Your task to perform on an android device: Check the weather Image 0: 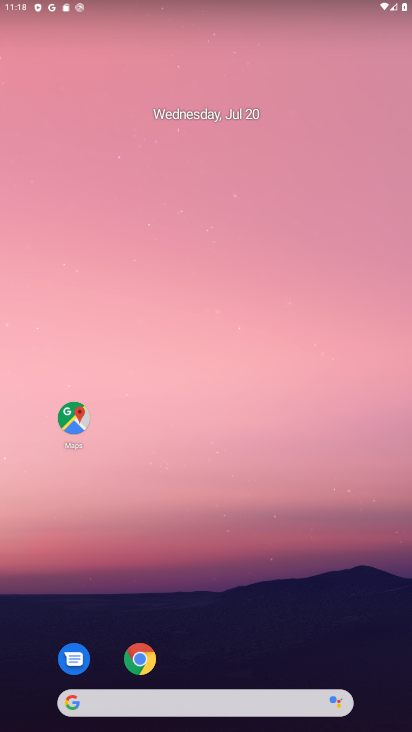
Step 0: drag from (14, 281) to (269, 315)
Your task to perform on an android device: Check the weather Image 1: 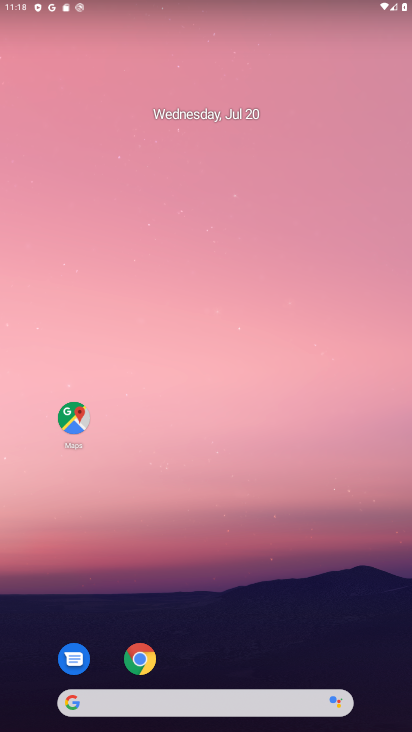
Step 1: drag from (5, 294) to (408, 322)
Your task to perform on an android device: Check the weather Image 2: 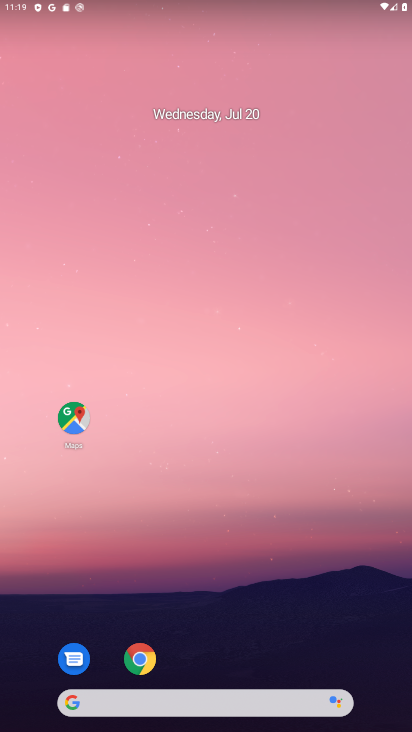
Step 2: drag from (4, 288) to (406, 384)
Your task to perform on an android device: Check the weather Image 3: 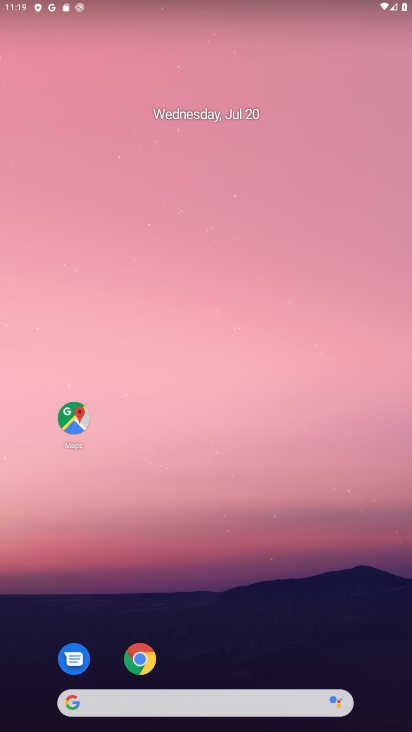
Step 3: click (137, 695)
Your task to perform on an android device: Check the weather Image 4: 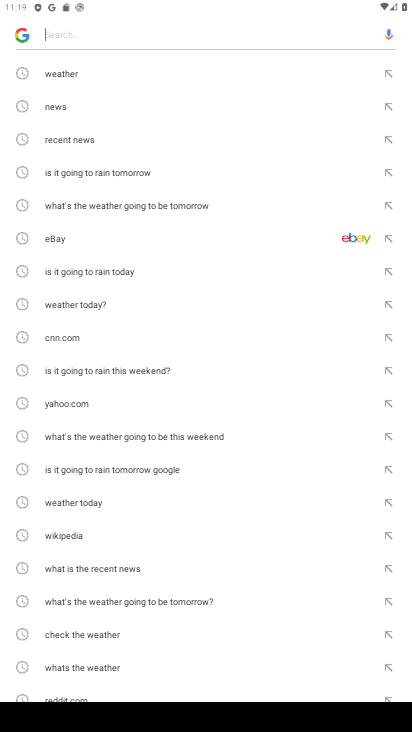
Step 4: type "weather"
Your task to perform on an android device: Check the weather Image 5: 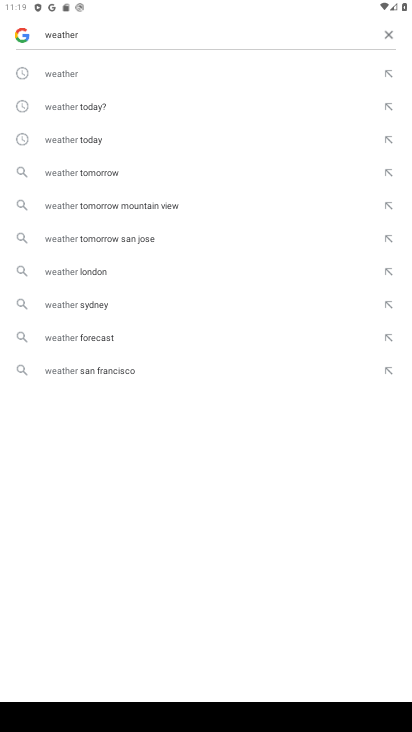
Step 5: click (65, 70)
Your task to perform on an android device: Check the weather Image 6: 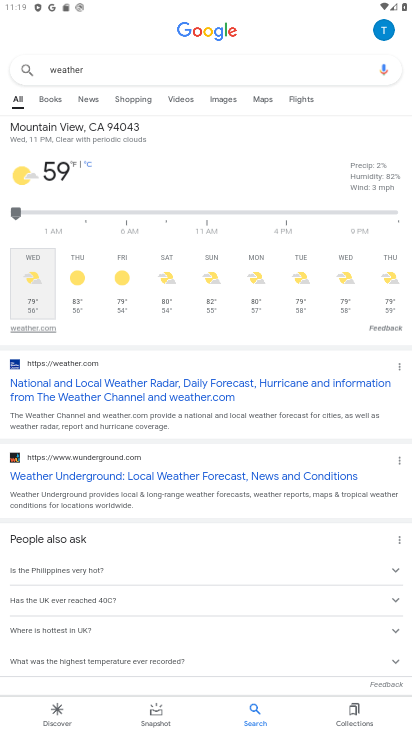
Step 6: task complete